Your task to perform on an android device: Open calendar and show me the first week of next month Image 0: 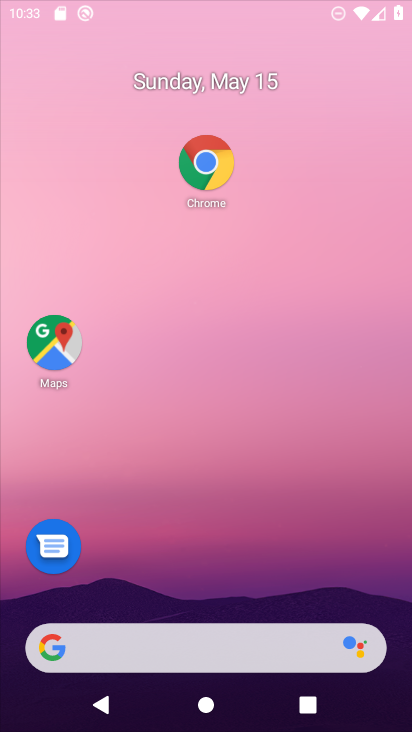
Step 0: click (268, 469)
Your task to perform on an android device: Open calendar and show me the first week of next month Image 1: 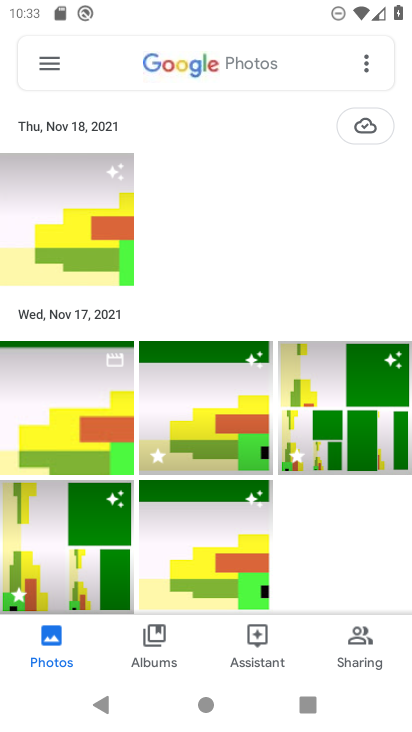
Step 1: press home button
Your task to perform on an android device: Open calendar and show me the first week of next month Image 2: 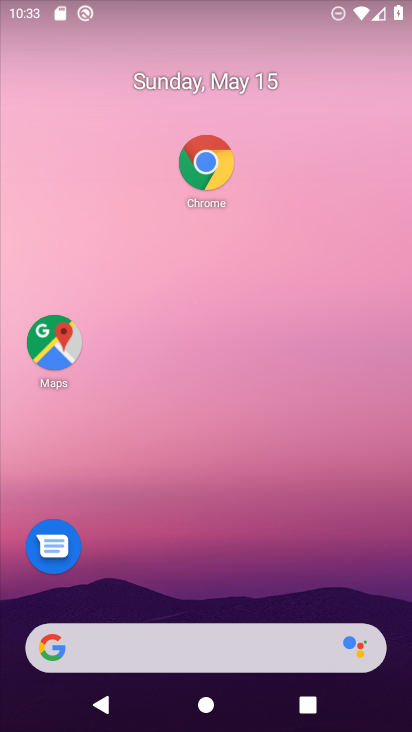
Step 2: drag from (258, 575) to (300, 294)
Your task to perform on an android device: Open calendar and show me the first week of next month Image 3: 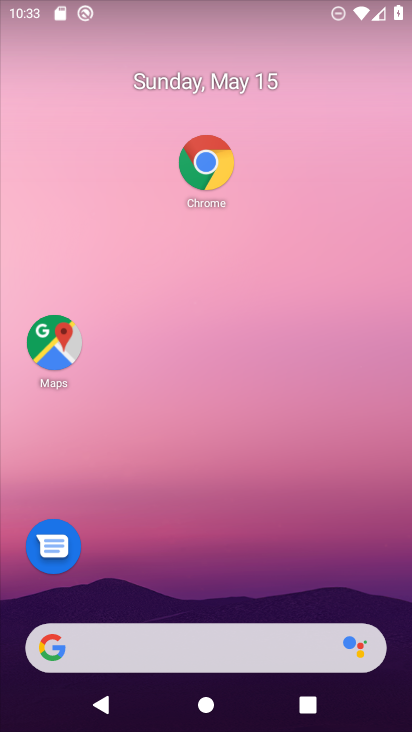
Step 3: drag from (192, 578) to (301, 175)
Your task to perform on an android device: Open calendar and show me the first week of next month Image 4: 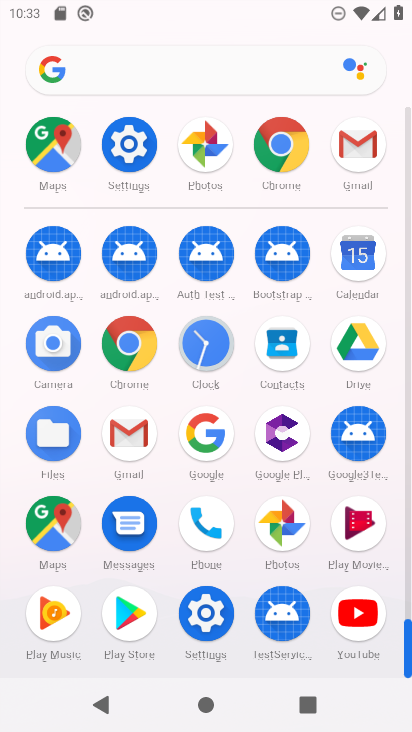
Step 4: click (347, 243)
Your task to perform on an android device: Open calendar and show me the first week of next month Image 5: 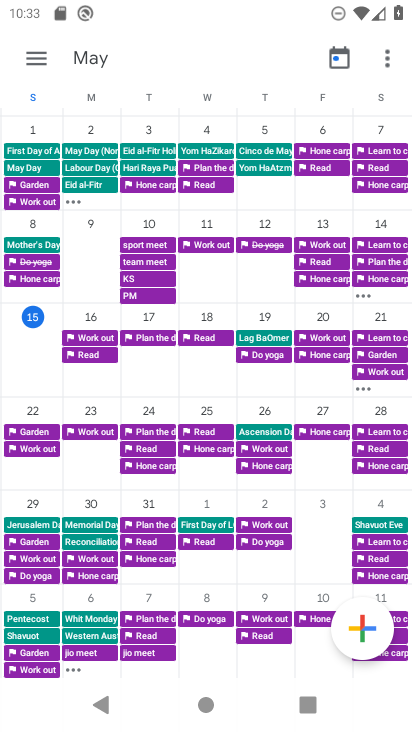
Step 5: task complete